Your task to perform on an android device: What's on my calendar tomorrow? Image 0: 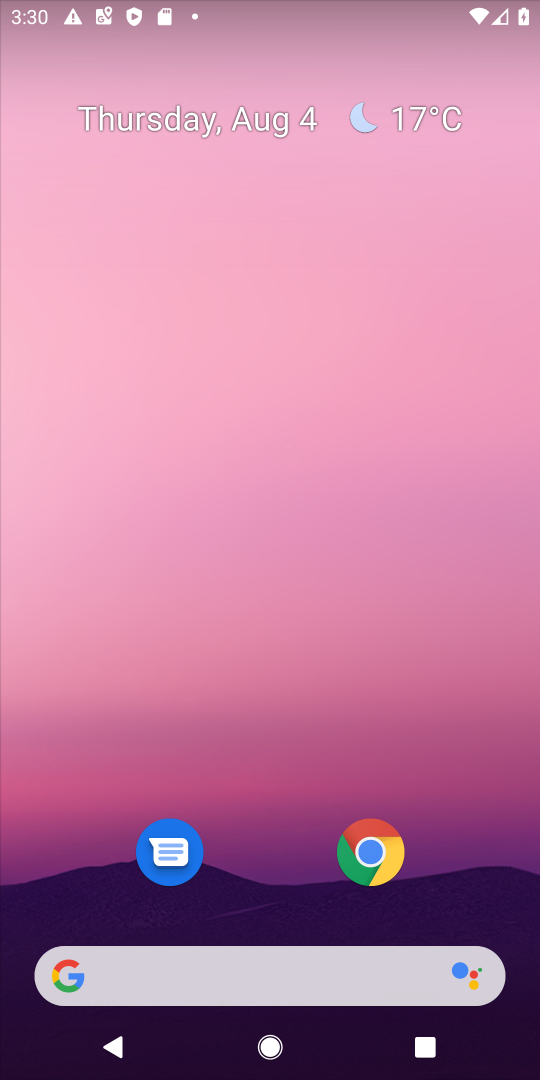
Step 0: drag from (268, 854) to (285, 128)
Your task to perform on an android device: What's on my calendar tomorrow? Image 1: 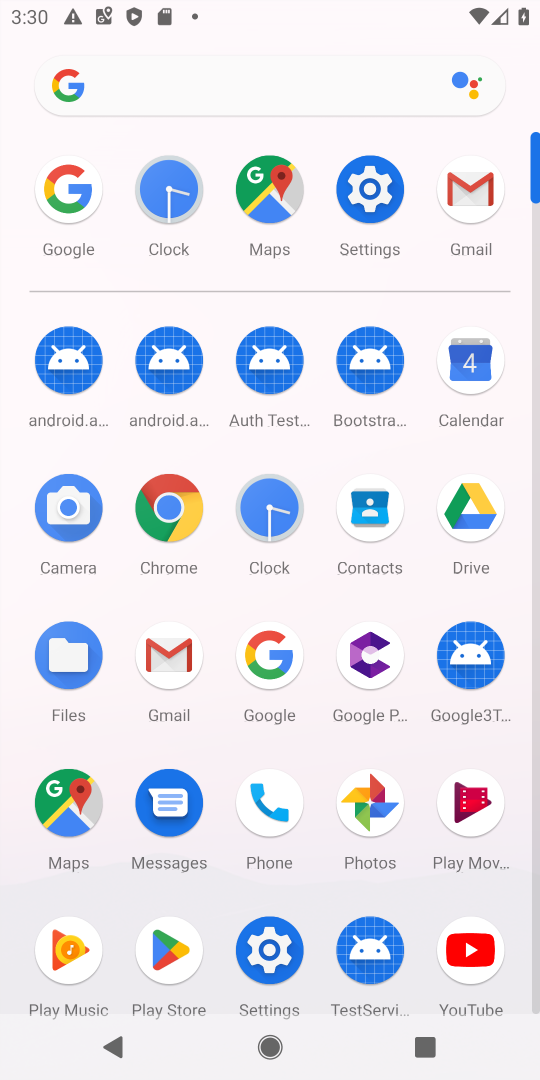
Step 1: click (474, 346)
Your task to perform on an android device: What's on my calendar tomorrow? Image 2: 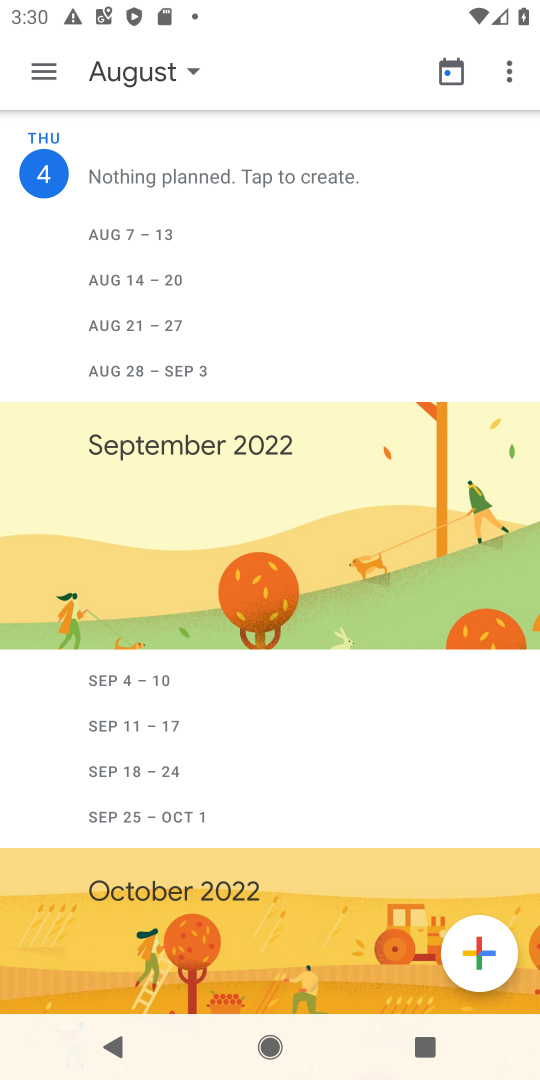
Step 2: drag from (231, 740) to (297, 854)
Your task to perform on an android device: What's on my calendar tomorrow? Image 3: 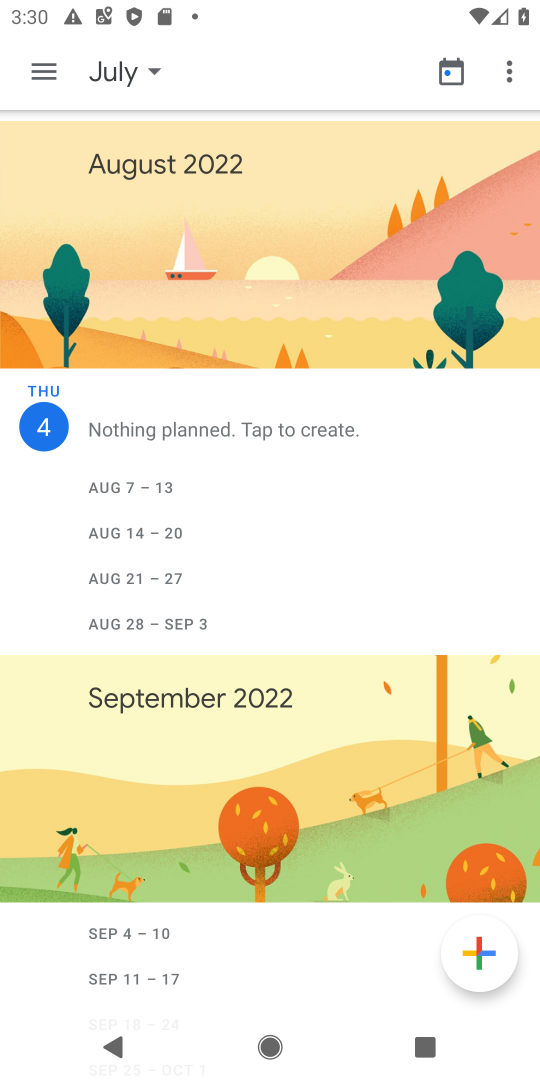
Step 3: click (146, 71)
Your task to perform on an android device: What's on my calendar tomorrow? Image 4: 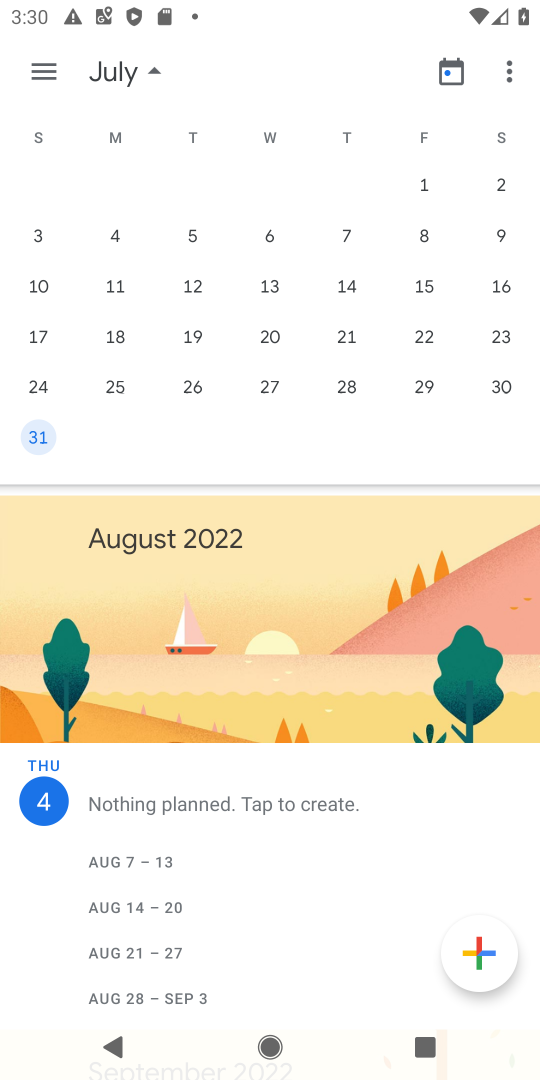
Step 4: drag from (501, 282) to (46, 263)
Your task to perform on an android device: What's on my calendar tomorrow? Image 5: 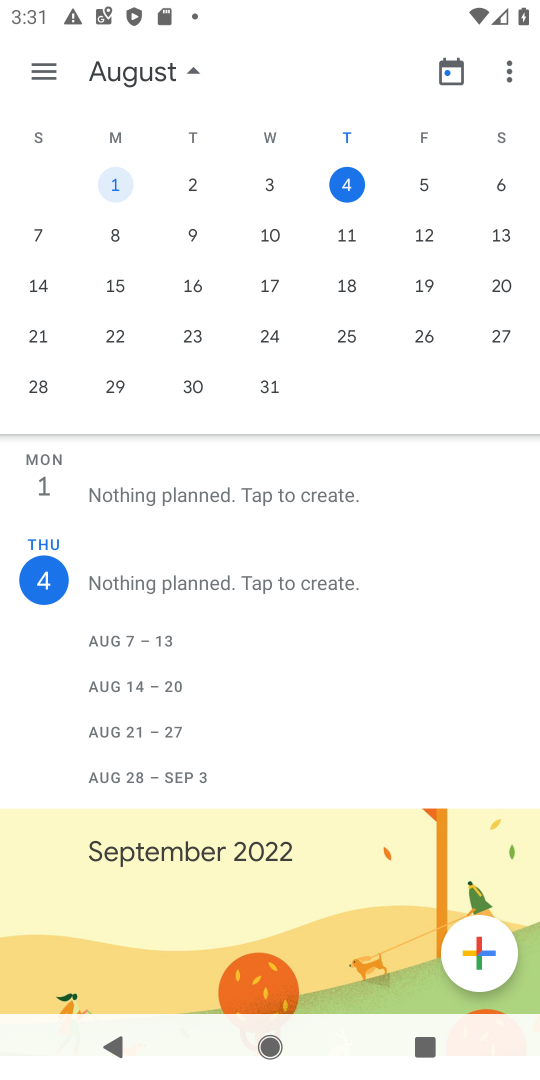
Step 5: click (431, 168)
Your task to perform on an android device: What's on my calendar tomorrow? Image 6: 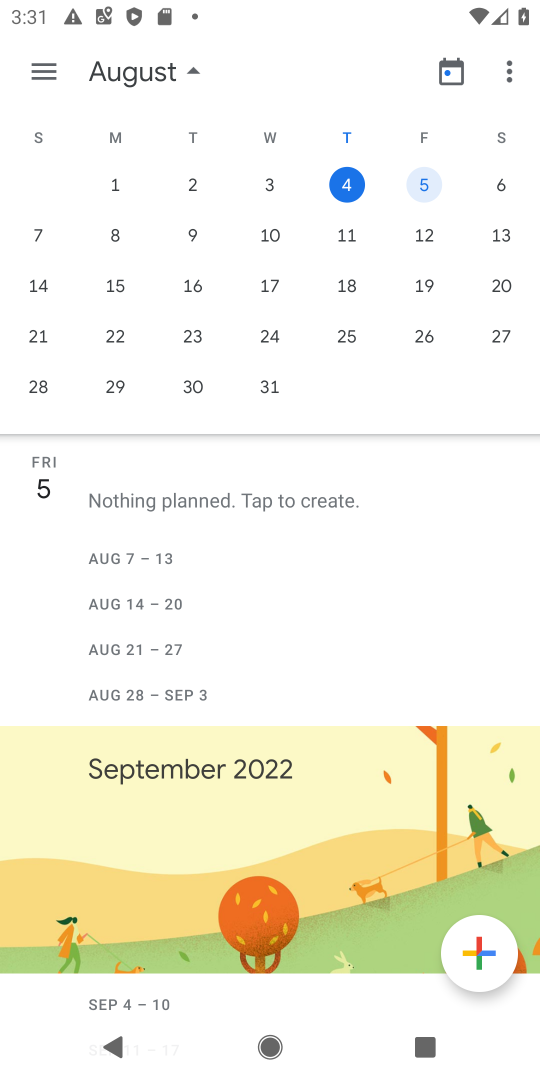
Step 6: task complete